Your task to perform on an android device: turn off notifications in google photos Image 0: 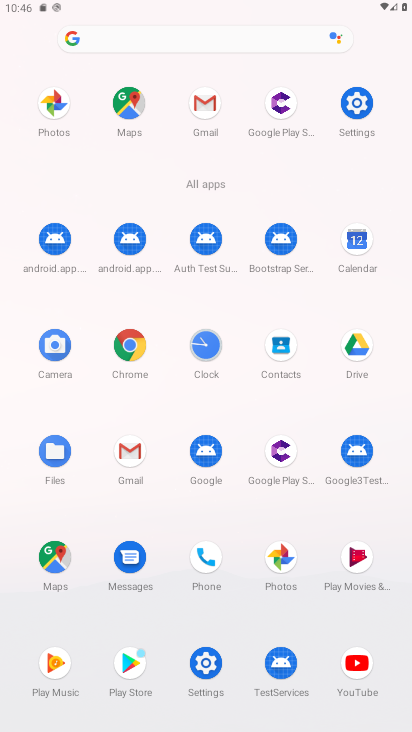
Step 0: click (283, 558)
Your task to perform on an android device: turn off notifications in google photos Image 1: 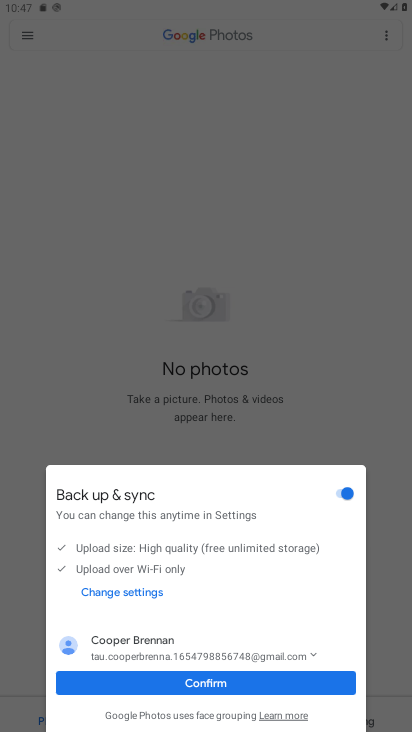
Step 1: click (217, 680)
Your task to perform on an android device: turn off notifications in google photos Image 2: 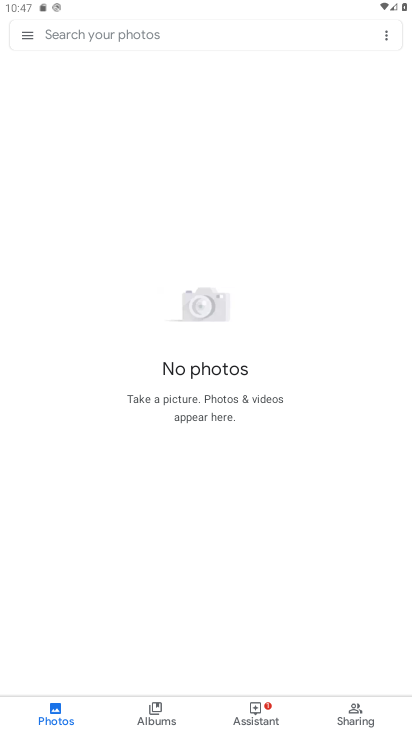
Step 2: click (26, 27)
Your task to perform on an android device: turn off notifications in google photos Image 3: 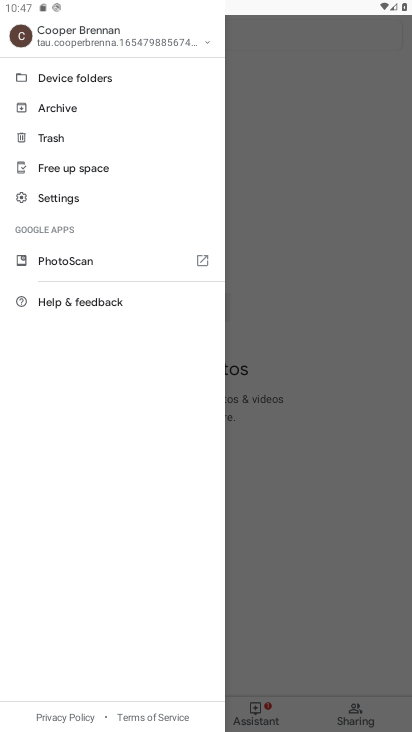
Step 3: click (108, 208)
Your task to perform on an android device: turn off notifications in google photos Image 4: 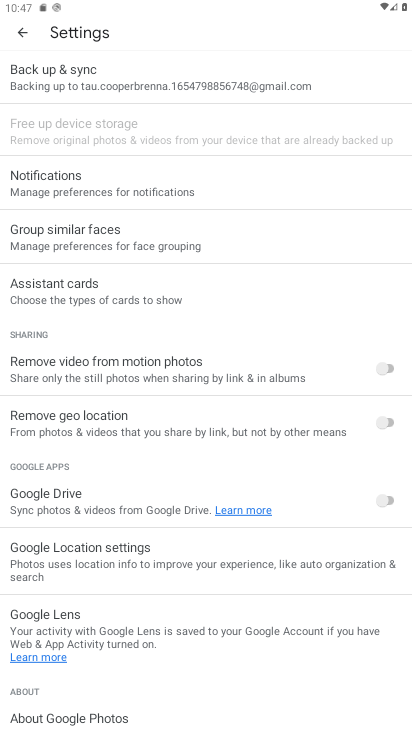
Step 4: click (102, 174)
Your task to perform on an android device: turn off notifications in google photos Image 5: 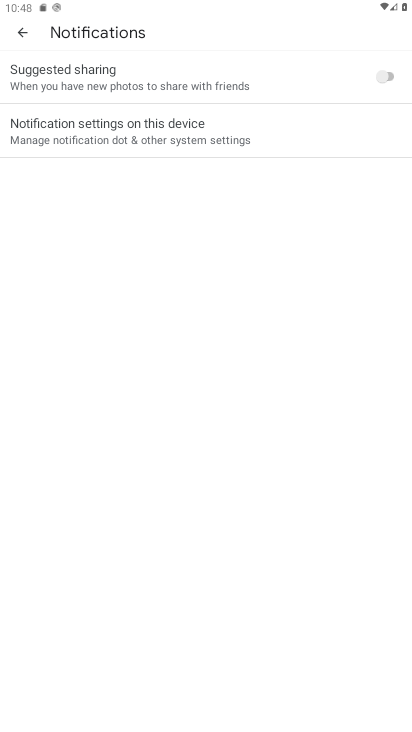
Step 5: click (280, 120)
Your task to perform on an android device: turn off notifications in google photos Image 6: 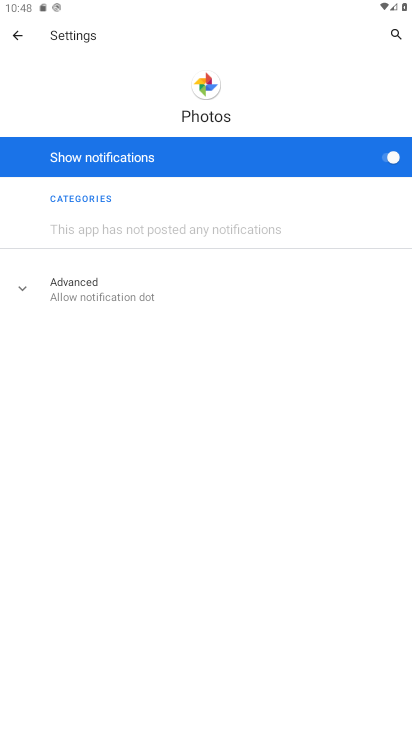
Step 6: click (381, 160)
Your task to perform on an android device: turn off notifications in google photos Image 7: 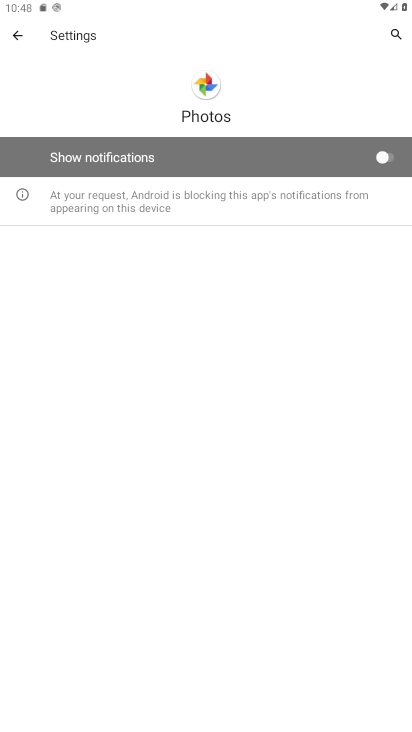
Step 7: task complete